Your task to perform on an android device: change the clock display to digital Image 0: 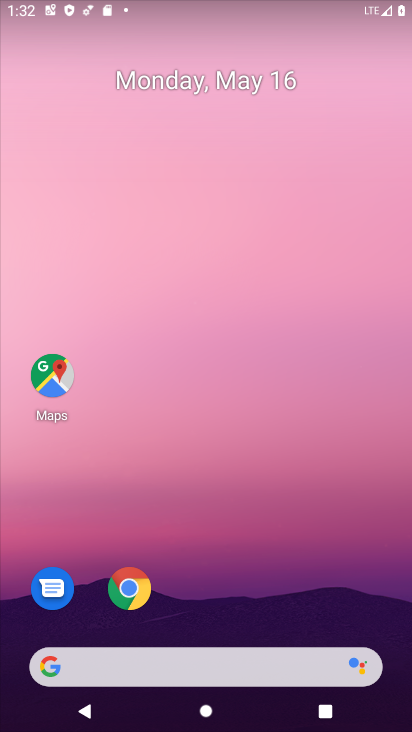
Step 0: drag from (246, 559) to (207, 169)
Your task to perform on an android device: change the clock display to digital Image 1: 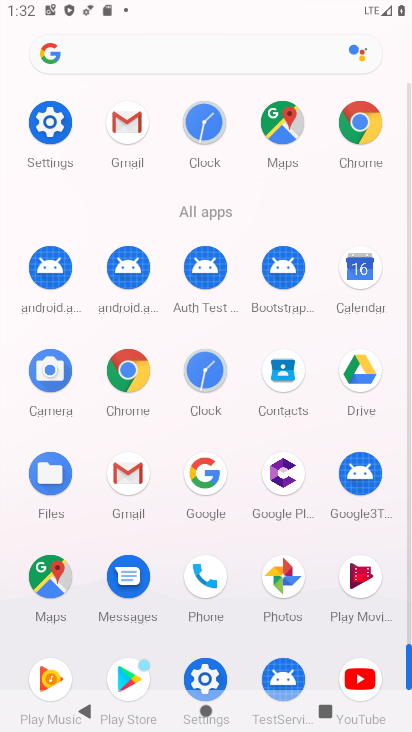
Step 1: click (203, 123)
Your task to perform on an android device: change the clock display to digital Image 2: 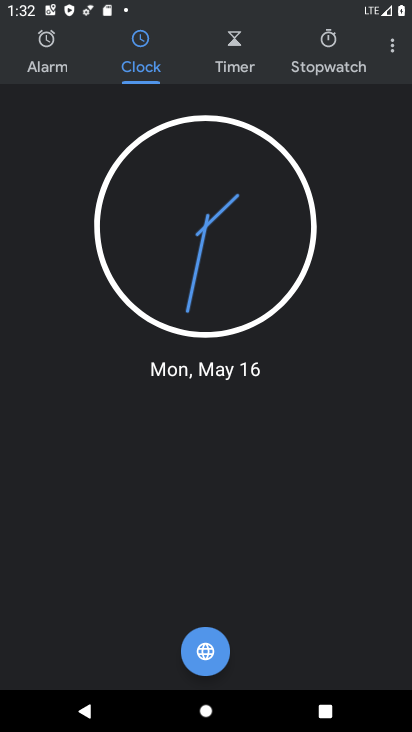
Step 2: click (391, 45)
Your task to perform on an android device: change the clock display to digital Image 3: 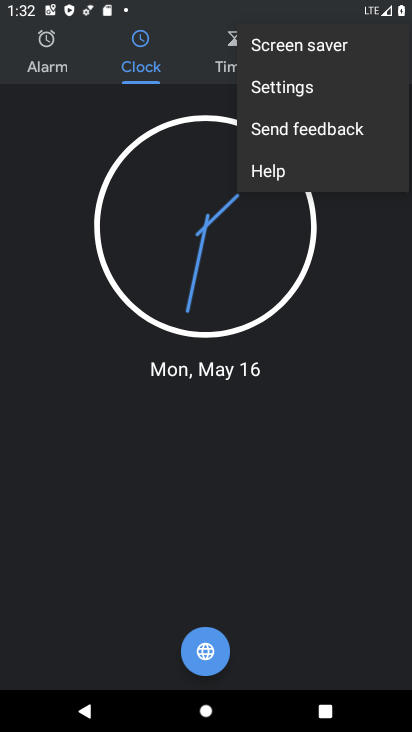
Step 3: click (282, 84)
Your task to perform on an android device: change the clock display to digital Image 4: 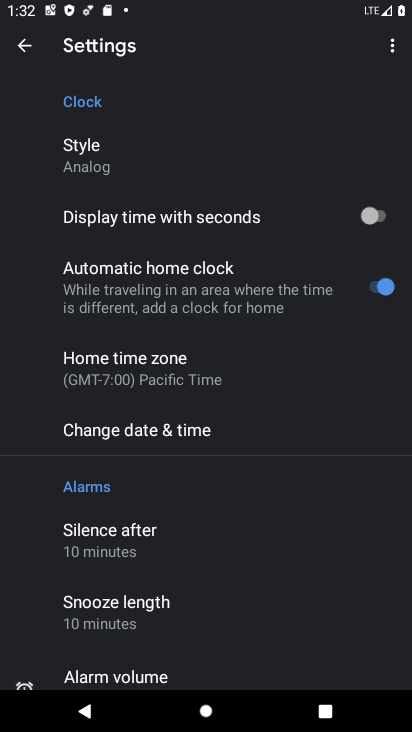
Step 4: click (100, 159)
Your task to perform on an android device: change the clock display to digital Image 5: 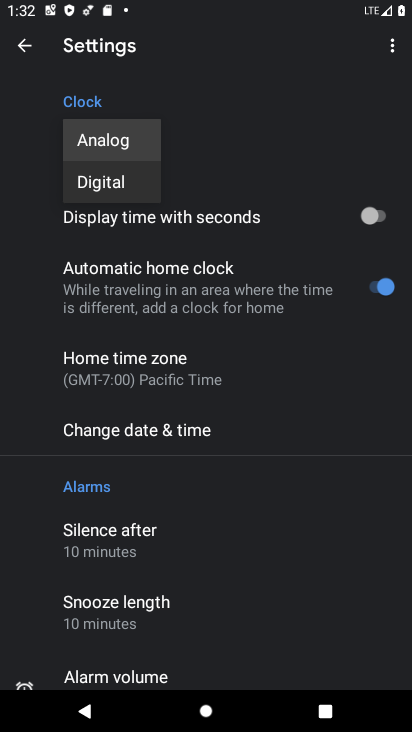
Step 5: click (117, 178)
Your task to perform on an android device: change the clock display to digital Image 6: 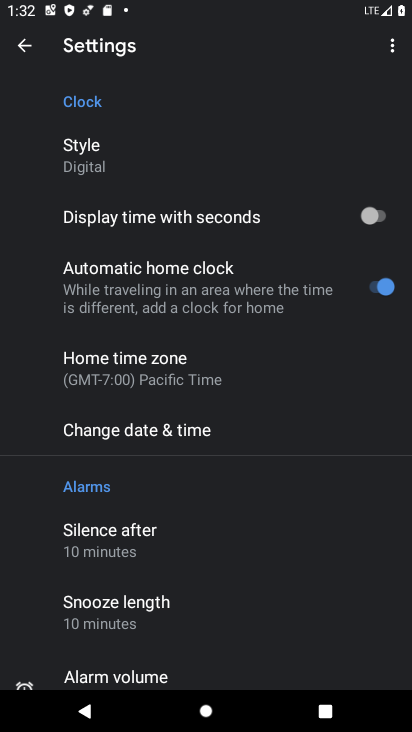
Step 6: task complete